Your task to perform on an android device: Clear all items from cart on bestbuy.com. Add "razer blade" to the cart on bestbuy.com, then select checkout. Image 0: 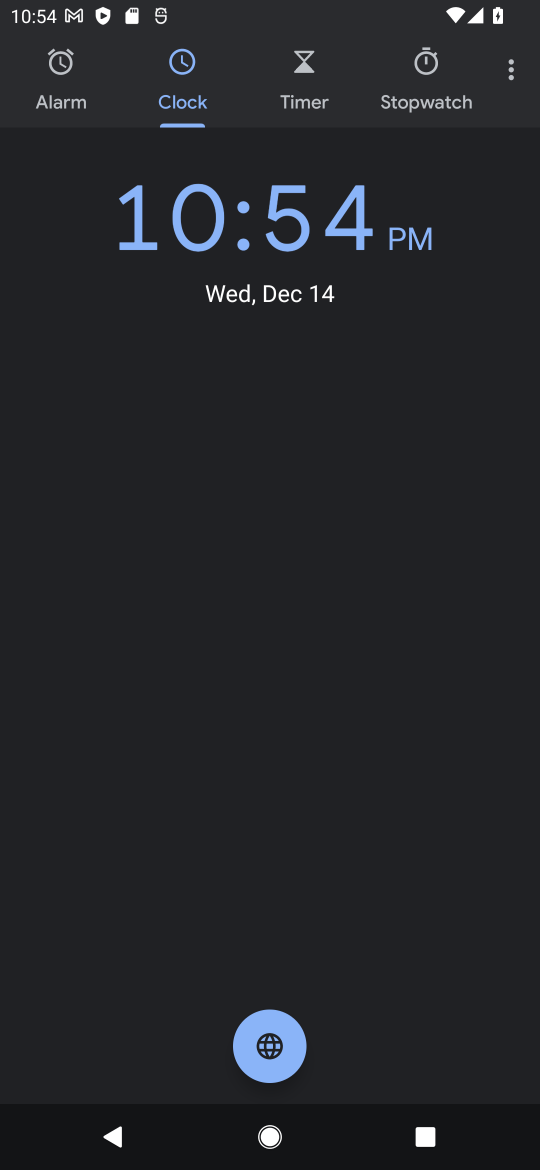
Step 0: press home button
Your task to perform on an android device: Clear all items from cart on bestbuy.com. Add "razer blade" to the cart on bestbuy.com, then select checkout. Image 1: 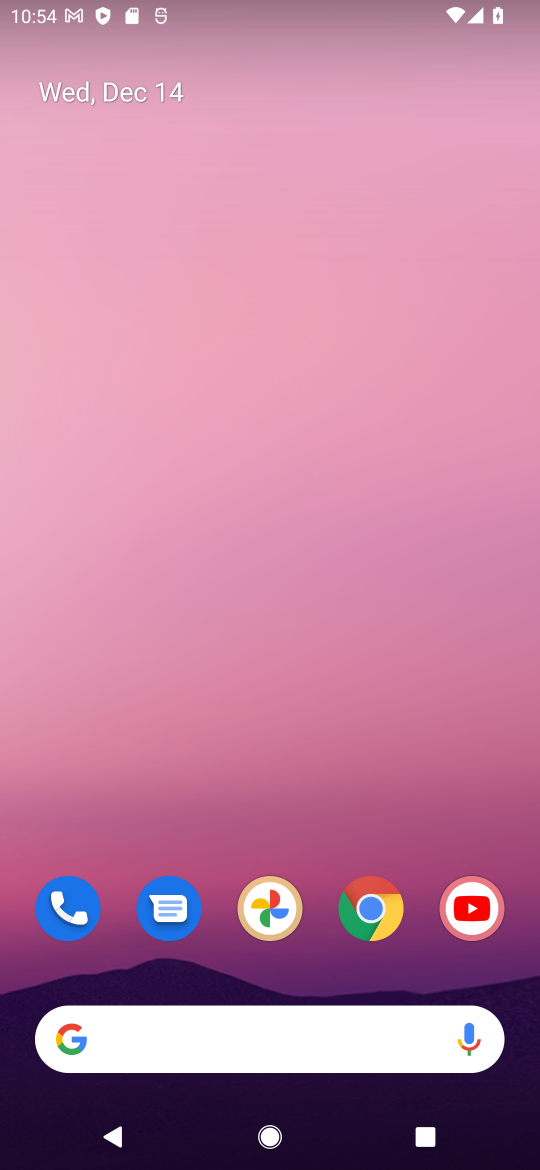
Step 1: click (358, 920)
Your task to perform on an android device: Clear all items from cart on bestbuy.com. Add "razer blade" to the cart on bestbuy.com, then select checkout. Image 2: 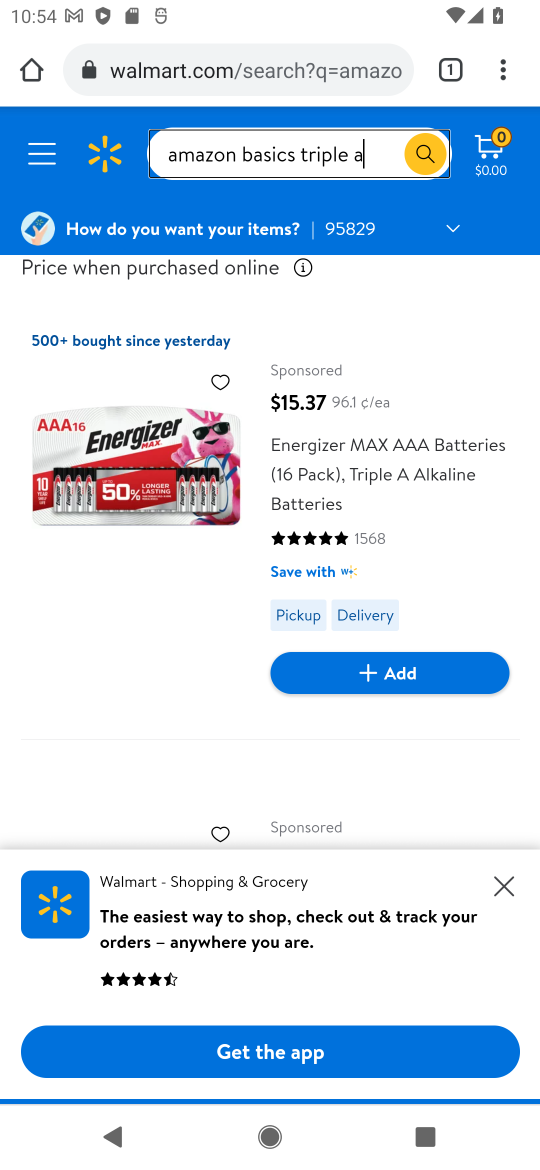
Step 2: click (210, 71)
Your task to perform on an android device: Clear all items from cart on bestbuy.com. Add "razer blade" to the cart on bestbuy.com, then select checkout. Image 3: 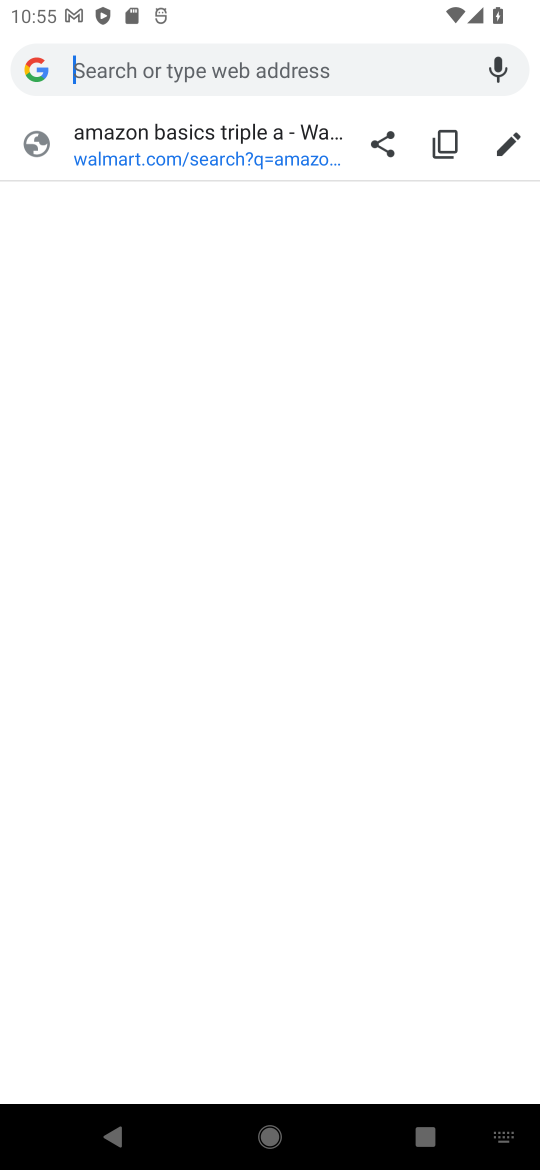
Step 3: type "bestbuy.com"
Your task to perform on an android device: Clear all items from cart on bestbuy.com. Add "razer blade" to the cart on bestbuy.com, then select checkout. Image 4: 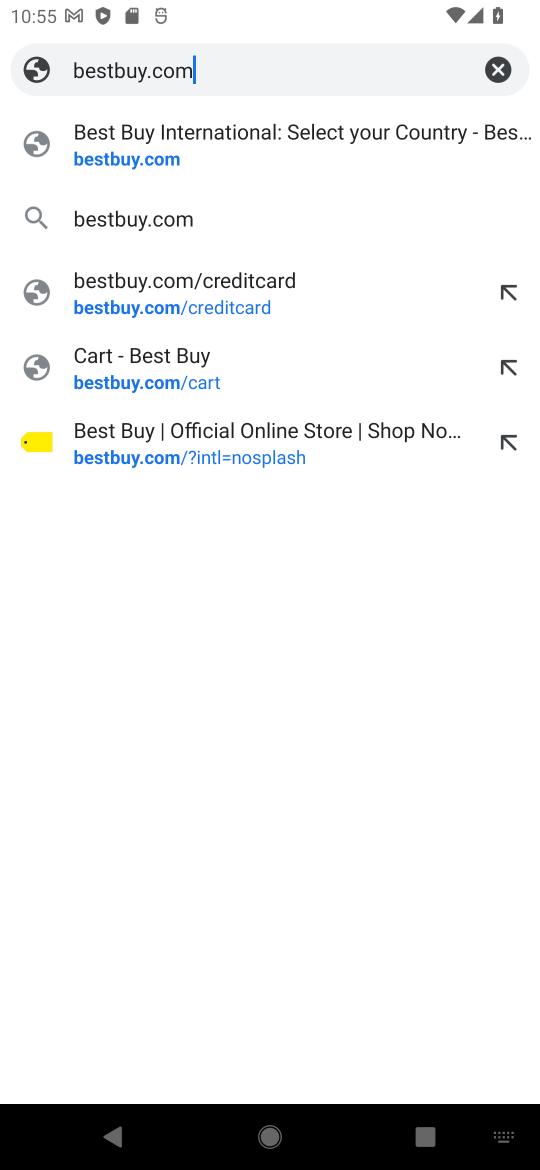
Step 4: click (116, 442)
Your task to perform on an android device: Clear all items from cart on bestbuy.com. Add "razer blade" to the cart on bestbuy.com, then select checkout. Image 5: 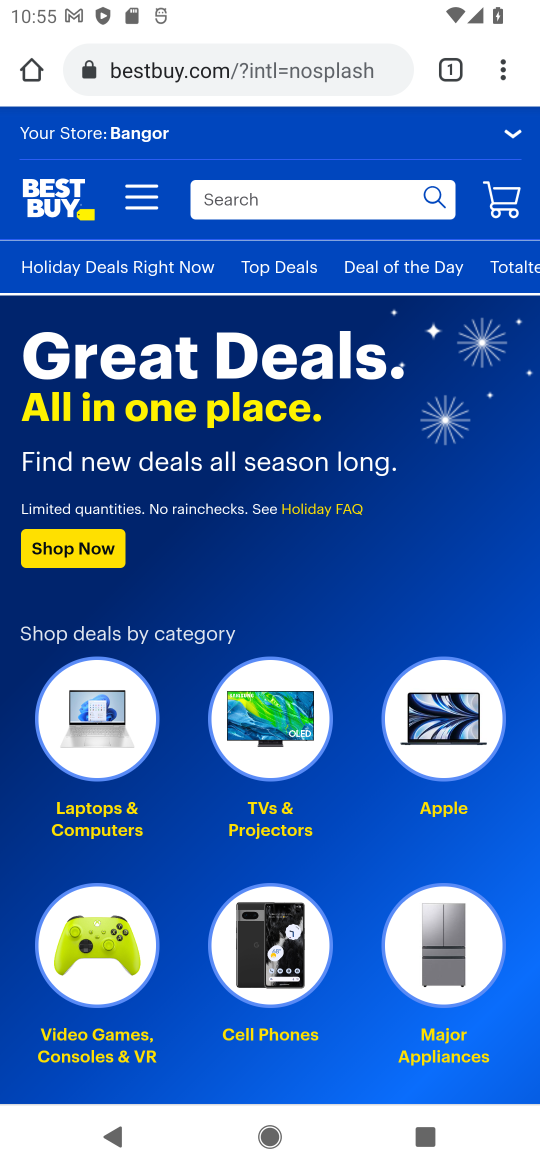
Step 5: click (495, 206)
Your task to perform on an android device: Clear all items from cart on bestbuy.com. Add "razer blade" to the cart on bestbuy.com, then select checkout. Image 6: 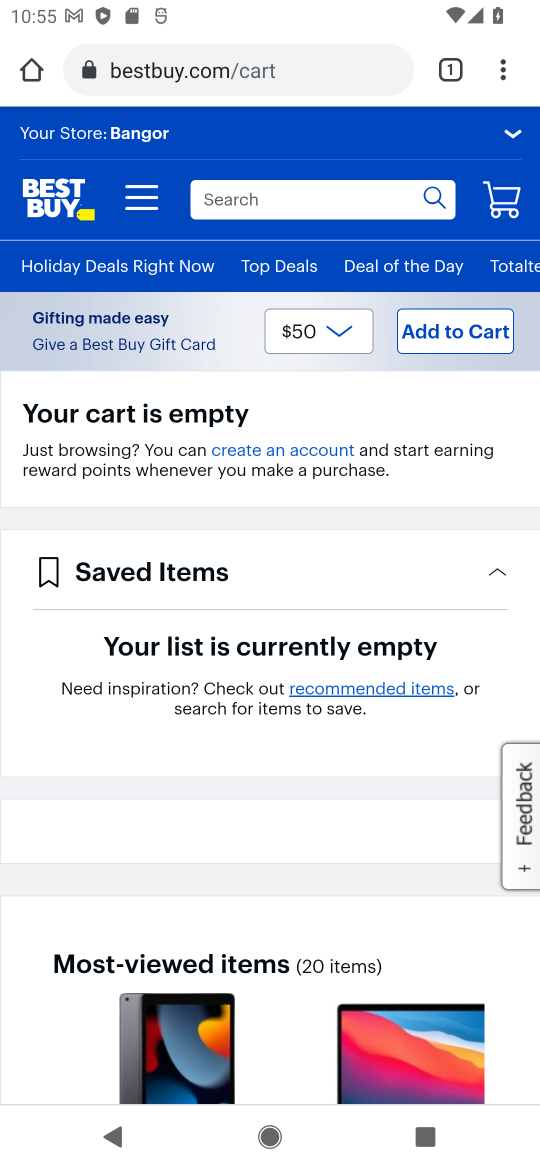
Step 6: click (244, 196)
Your task to perform on an android device: Clear all items from cart on bestbuy.com. Add "razer blade" to the cart on bestbuy.com, then select checkout. Image 7: 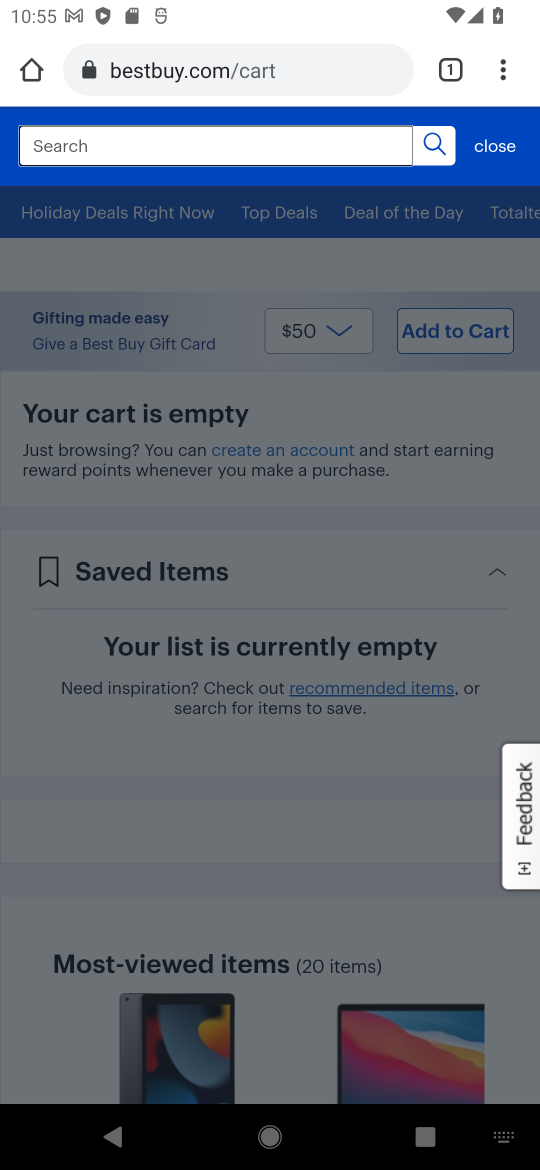
Step 7: type "razer blade"
Your task to perform on an android device: Clear all items from cart on bestbuy.com. Add "razer blade" to the cart on bestbuy.com, then select checkout. Image 8: 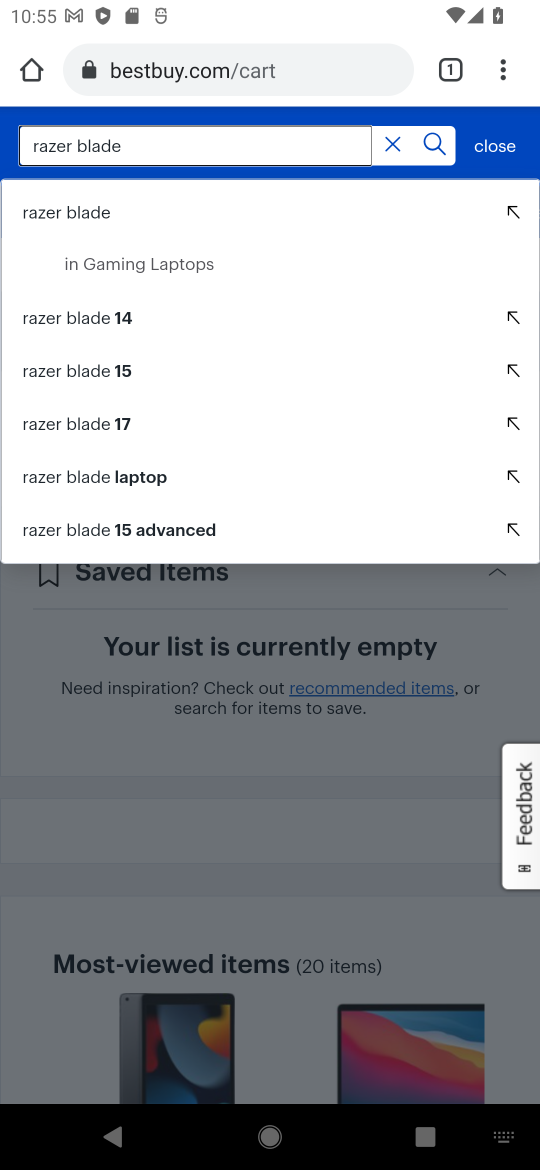
Step 8: click (80, 209)
Your task to perform on an android device: Clear all items from cart on bestbuy.com. Add "razer blade" to the cart on bestbuy.com, then select checkout. Image 9: 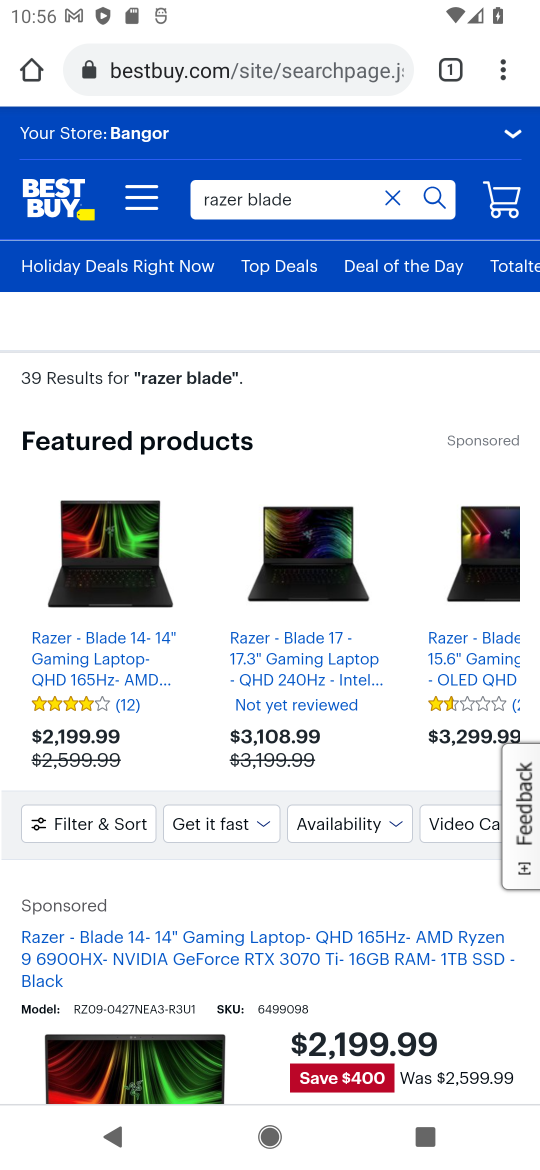
Step 9: drag from (204, 779) to (212, 387)
Your task to perform on an android device: Clear all items from cart on bestbuy.com. Add "razer blade" to the cart on bestbuy.com, then select checkout. Image 10: 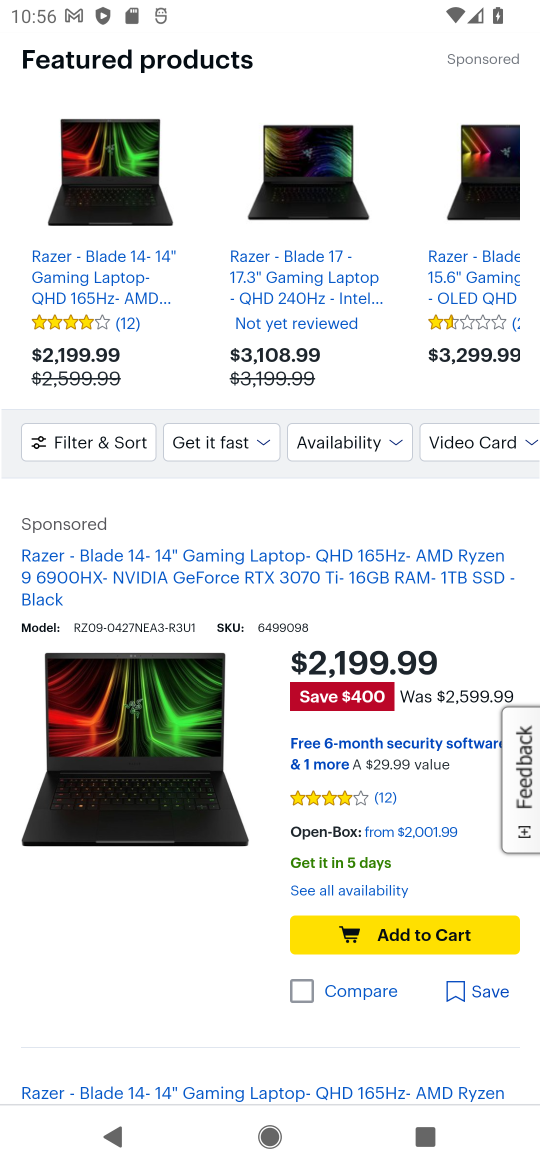
Step 10: click (355, 939)
Your task to perform on an android device: Clear all items from cart on bestbuy.com. Add "razer blade" to the cart on bestbuy.com, then select checkout. Image 11: 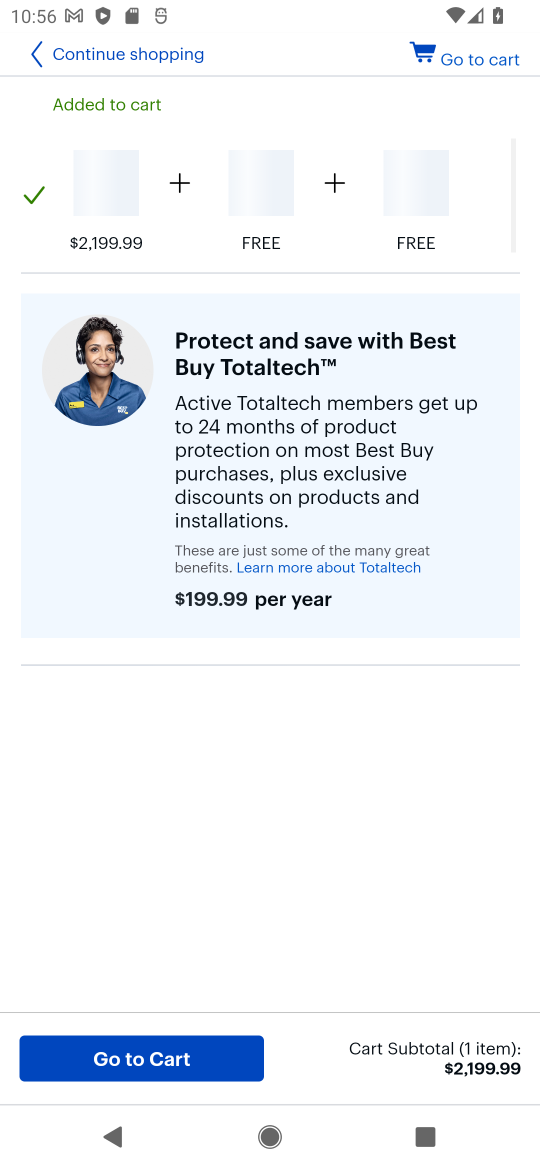
Step 11: click (464, 67)
Your task to perform on an android device: Clear all items from cart on bestbuy.com. Add "razer blade" to the cart on bestbuy.com, then select checkout. Image 12: 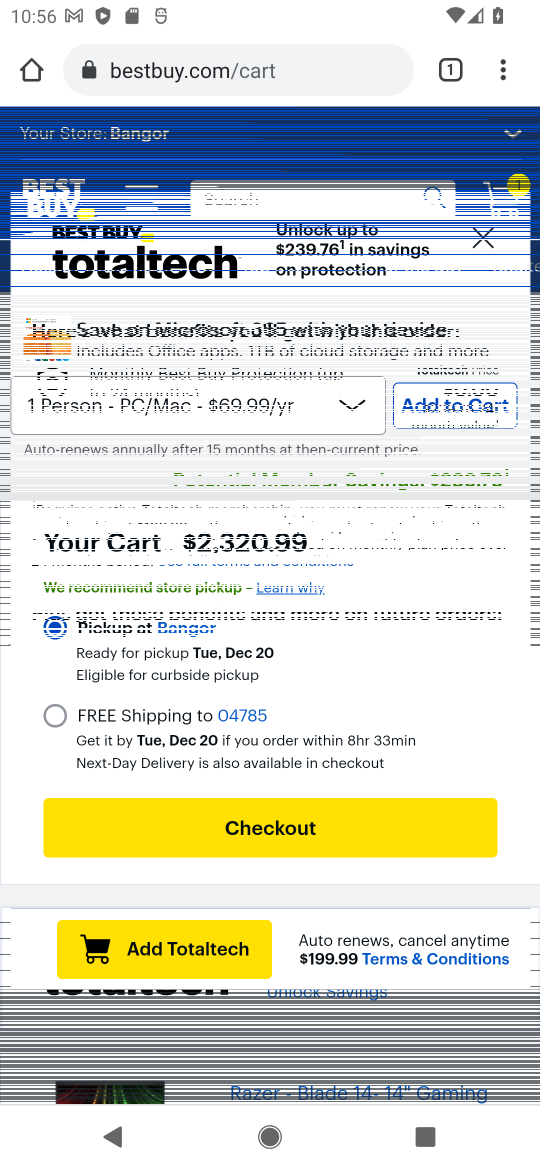
Step 12: click (484, 241)
Your task to perform on an android device: Clear all items from cart on bestbuy.com. Add "razer blade" to the cart on bestbuy.com, then select checkout. Image 13: 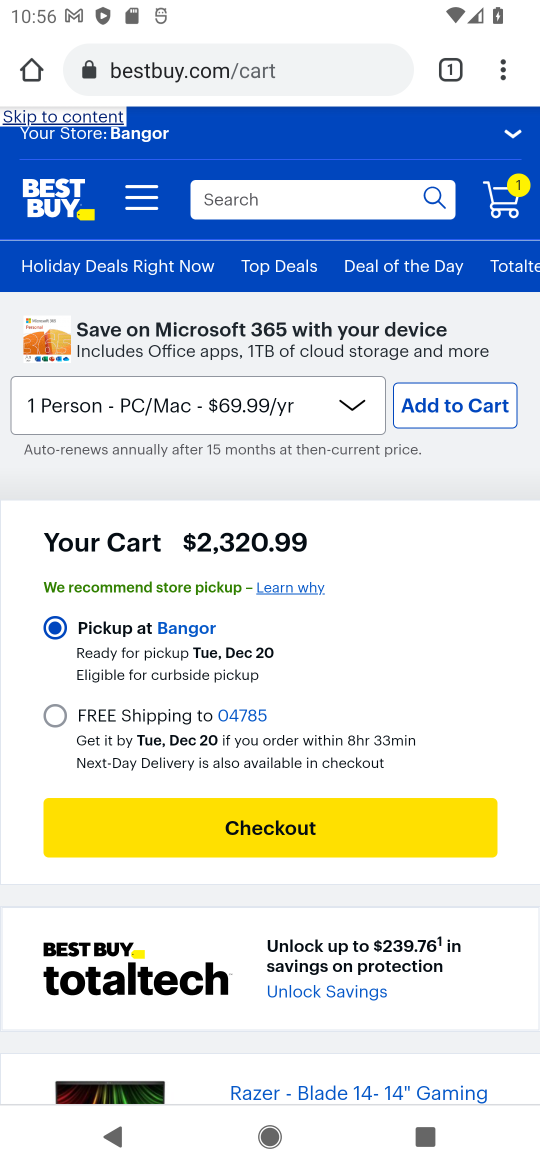
Step 13: click (237, 830)
Your task to perform on an android device: Clear all items from cart on bestbuy.com. Add "razer blade" to the cart on bestbuy.com, then select checkout. Image 14: 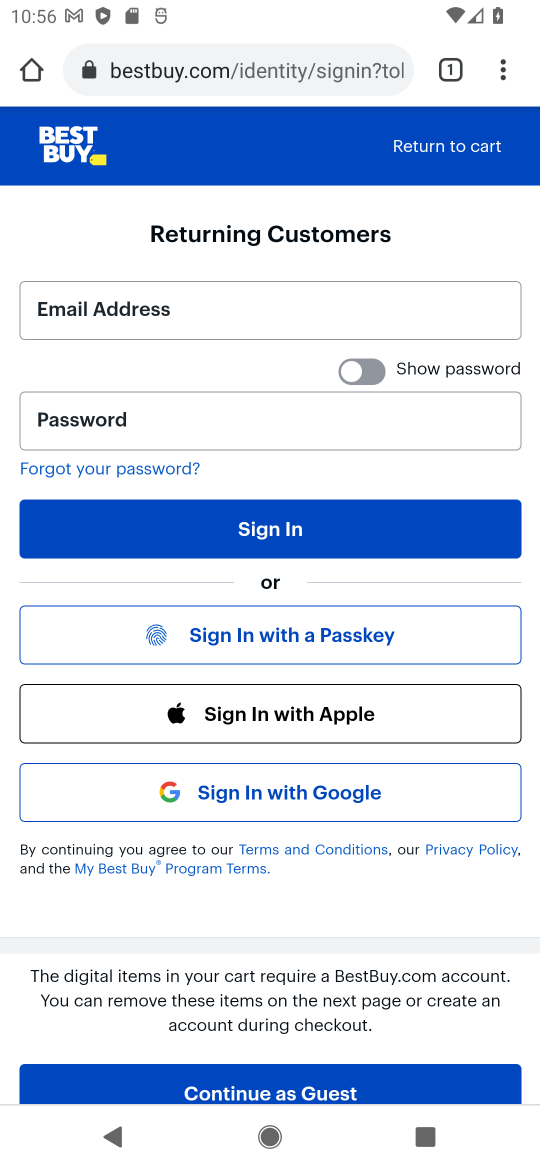
Step 14: task complete